Your task to perform on an android device: turn smart compose on in the gmail app Image 0: 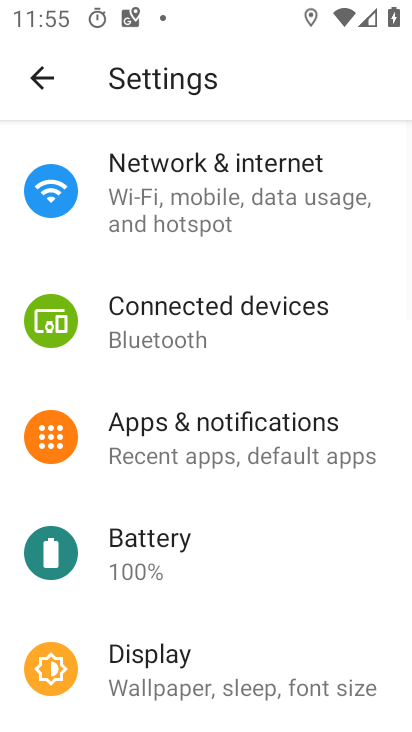
Step 0: press home button
Your task to perform on an android device: turn smart compose on in the gmail app Image 1: 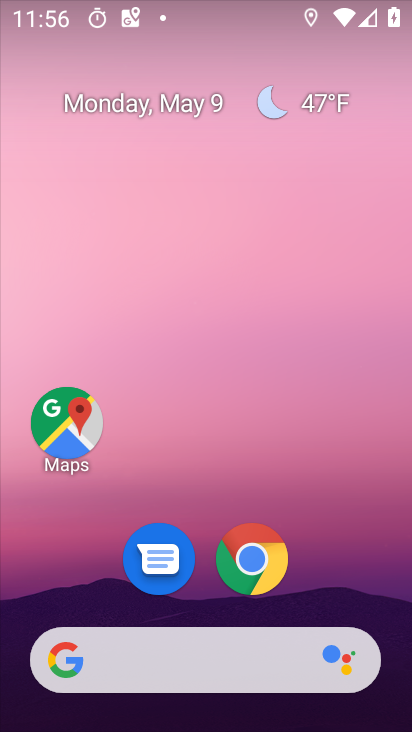
Step 1: drag from (357, 589) to (359, 0)
Your task to perform on an android device: turn smart compose on in the gmail app Image 2: 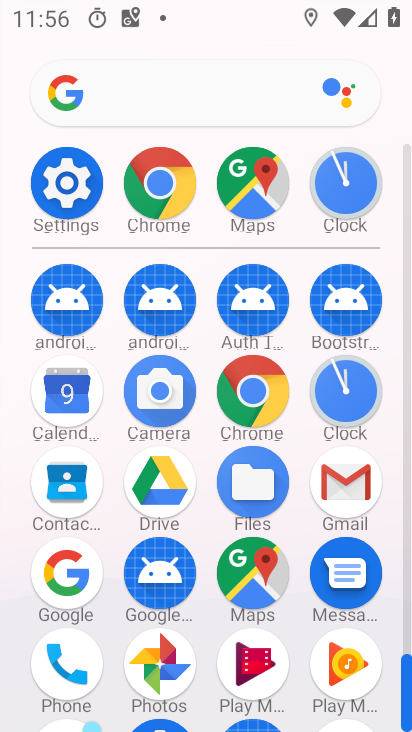
Step 2: click (353, 466)
Your task to perform on an android device: turn smart compose on in the gmail app Image 3: 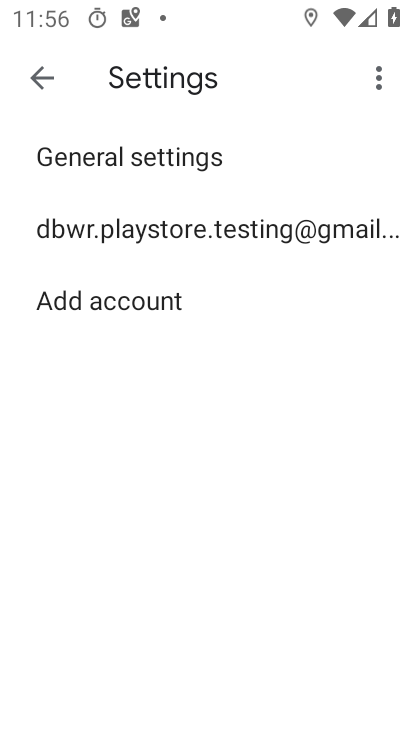
Step 3: click (110, 219)
Your task to perform on an android device: turn smart compose on in the gmail app Image 4: 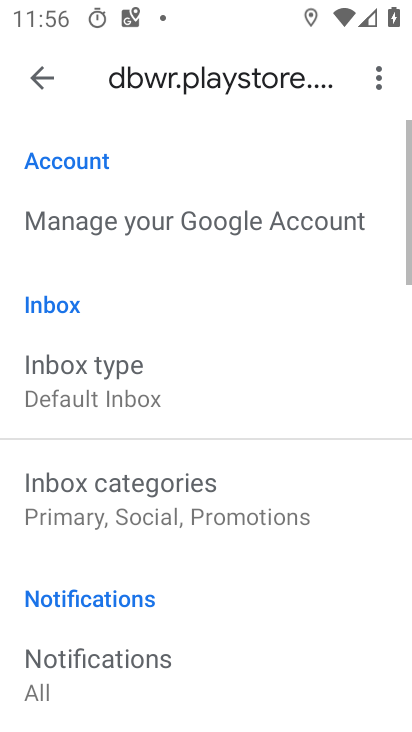
Step 4: task complete